Your task to perform on an android device: change your default location settings in chrome Image 0: 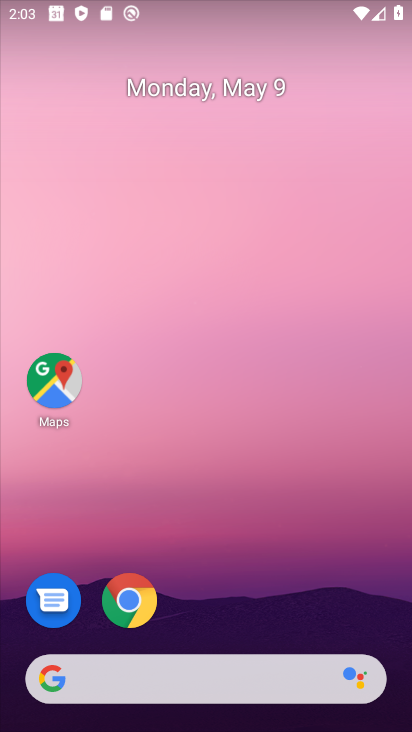
Step 0: drag from (311, 566) to (105, 3)
Your task to perform on an android device: change your default location settings in chrome Image 1: 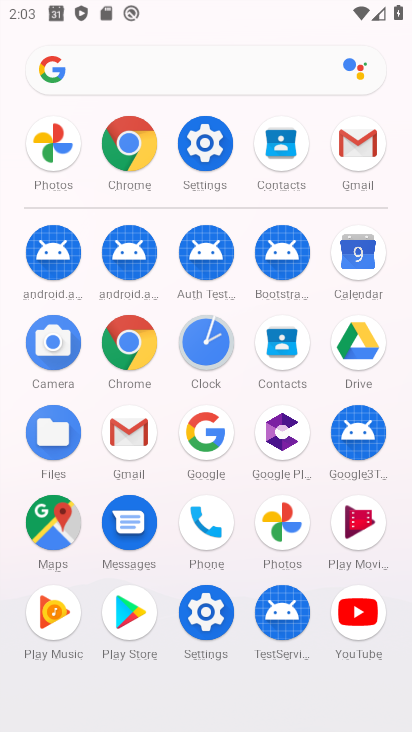
Step 1: drag from (7, 505) to (7, 200)
Your task to perform on an android device: change your default location settings in chrome Image 2: 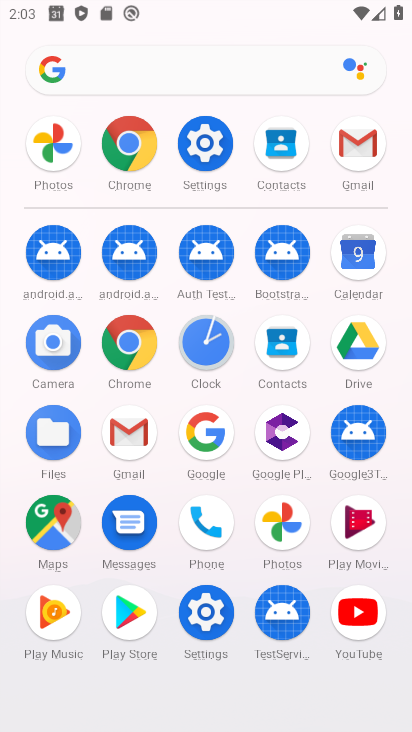
Step 2: click (124, 341)
Your task to perform on an android device: change your default location settings in chrome Image 3: 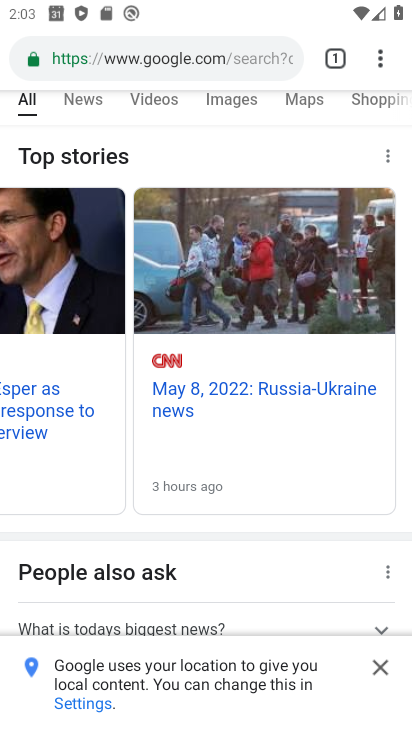
Step 3: drag from (377, 54) to (169, 649)
Your task to perform on an android device: change your default location settings in chrome Image 4: 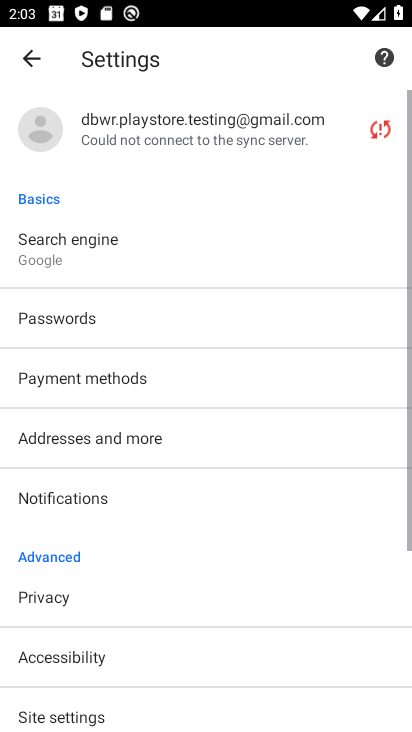
Step 4: drag from (185, 579) to (218, 157)
Your task to perform on an android device: change your default location settings in chrome Image 5: 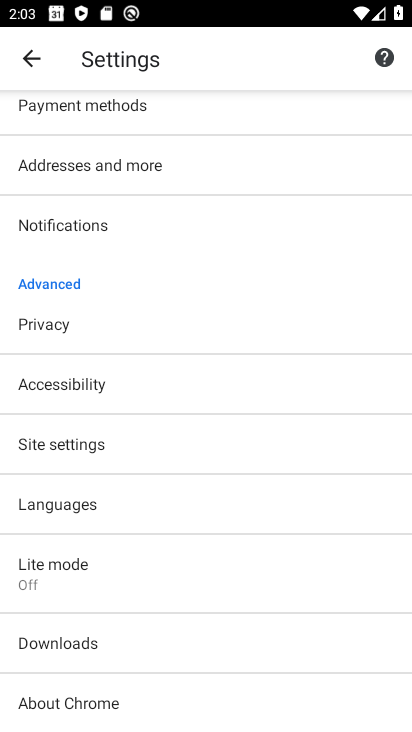
Step 5: click (95, 441)
Your task to perform on an android device: change your default location settings in chrome Image 6: 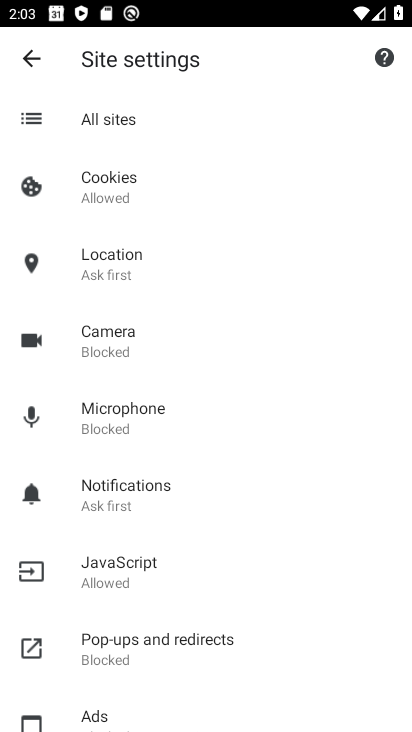
Step 6: click (167, 273)
Your task to perform on an android device: change your default location settings in chrome Image 7: 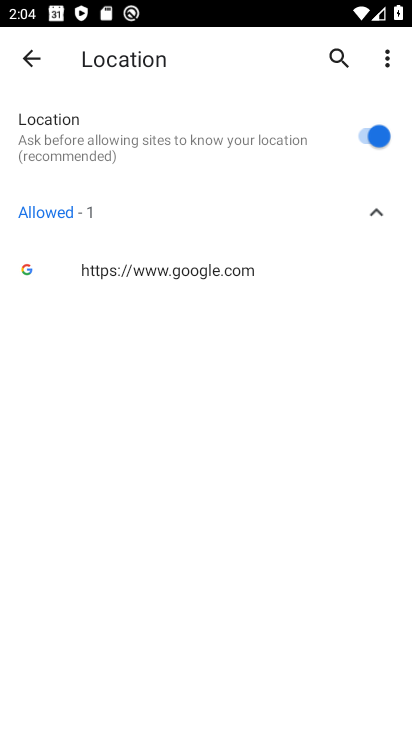
Step 7: click (365, 134)
Your task to perform on an android device: change your default location settings in chrome Image 8: 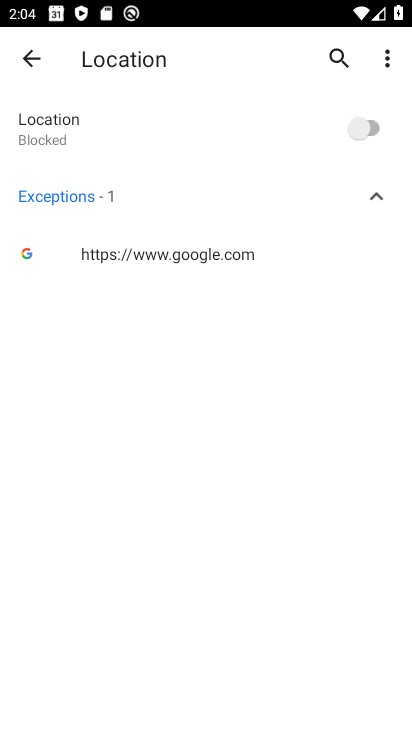
Step 8: task complete